Your task to perform on an android device: toggle translation in the chrome app Image 0: 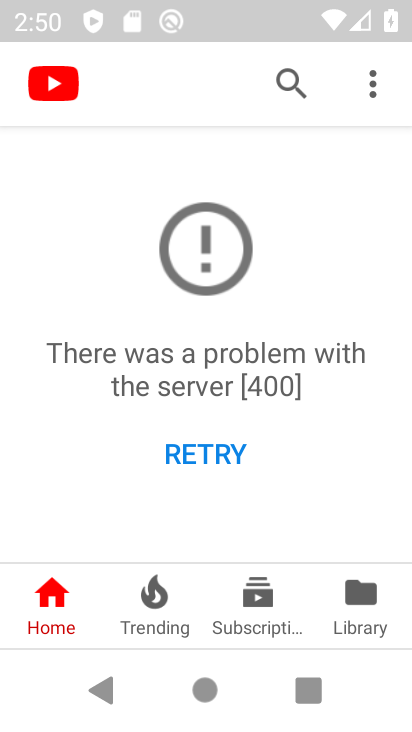
Step 0: press home button
Your task to perform on an android device: toggle translation in the chrome app Image 1: 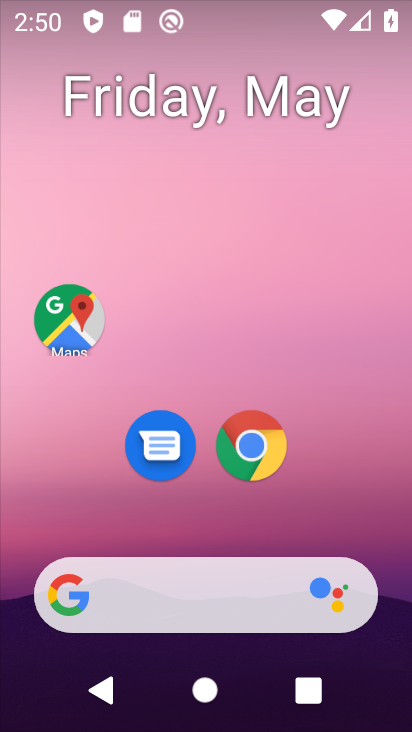
Step 1: drag from (239, 584) to (118, 207)
Your task to perform on an android device: toggle translation in the chrome app Image 2: 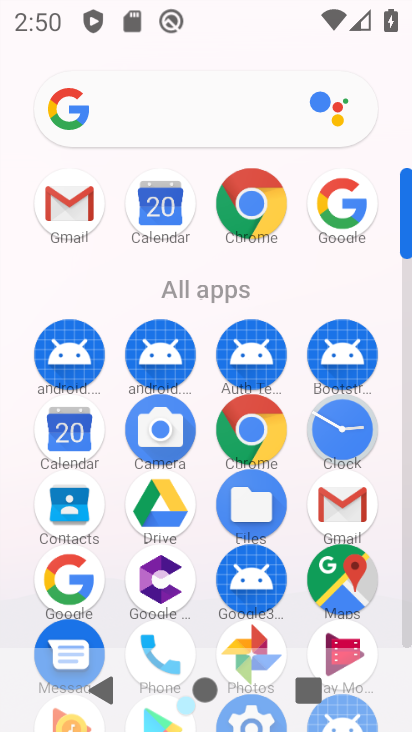
Step 2: click (272, 433)
Your task to perform on an android device: toggle translation in the chrome app Image 3: 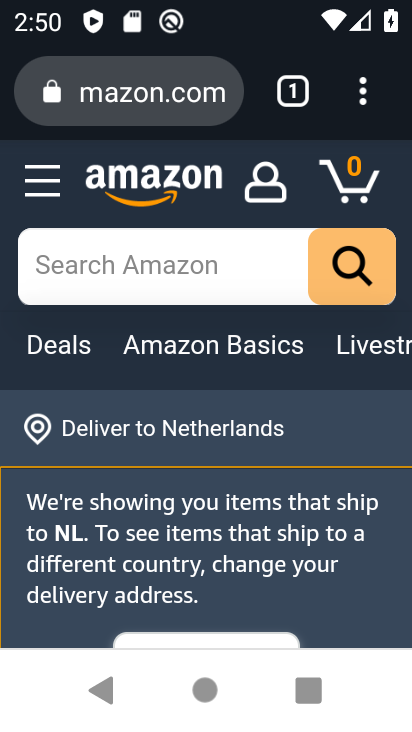
Step 3: click (370, 112)
Your task to perform on an android device: toggle translation in the chrome app Image 4: 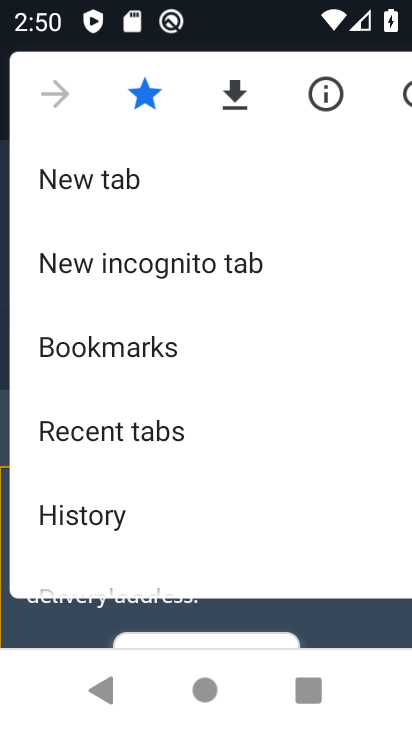
Step 4: drag from (181, 482) to (254, 257)
Your task to perform on an android device: toggle translation in the chrome app Image 5: 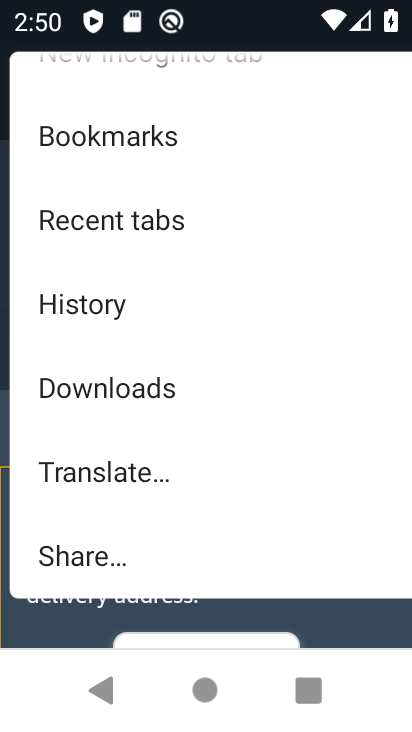
Step 5: drag from (166, 469) to (163, 111)
Your task to perform on an android device: toggle translation in the chrome app Image 6: 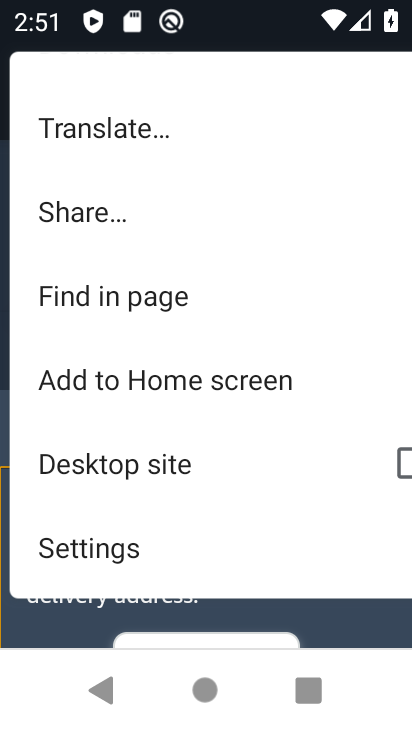
Step 6: click (147, 148)
Your task to perform on an android device: toggle translation in the chrome app Image 7: 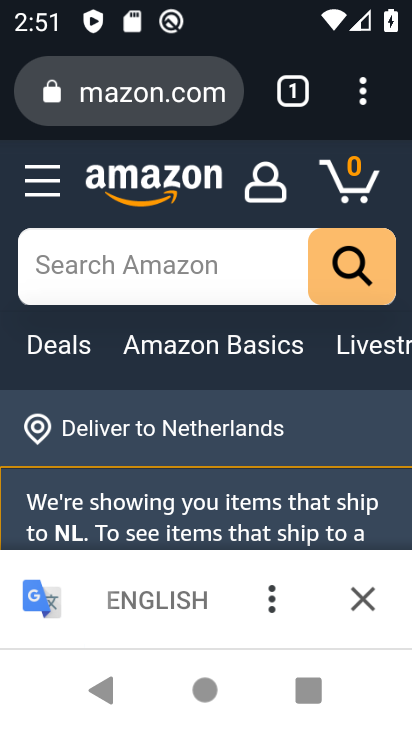
Step 7: click (266, 601)
Your task to perform on an android device: toggle translation in the chrome app Image 8: 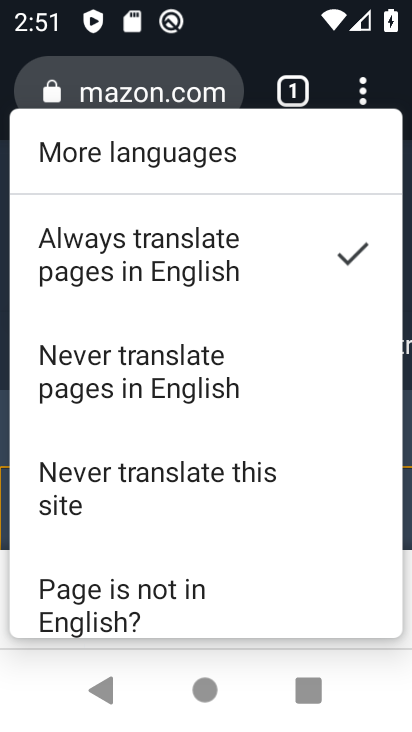
Step 8: click (249, 590)
Your task to perform on an android device: toggle translation in the chrome app Image 9: 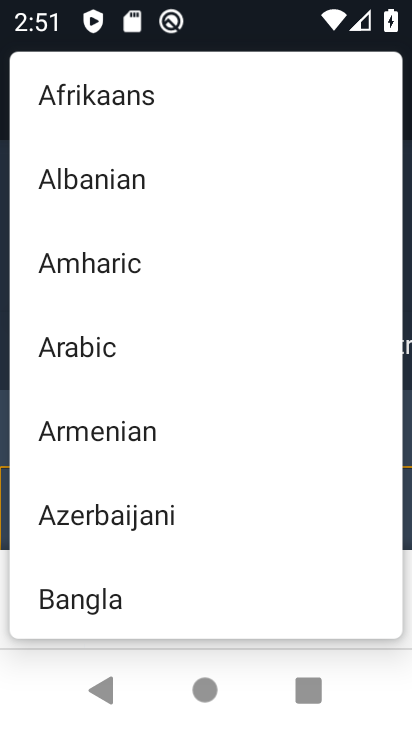
Step 9: task complete